Your task to perform on an android device: Open privacy settings Image 0: 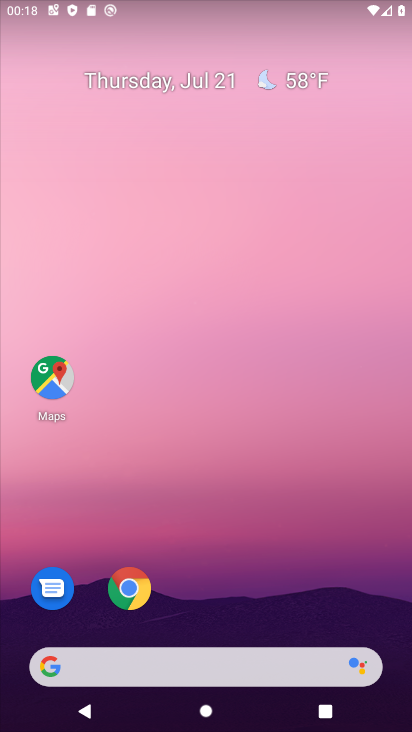
Step 0: drag from (202, 614) to (203, 129)
Your task to perform on an android device: Open privacy settings Image 1: 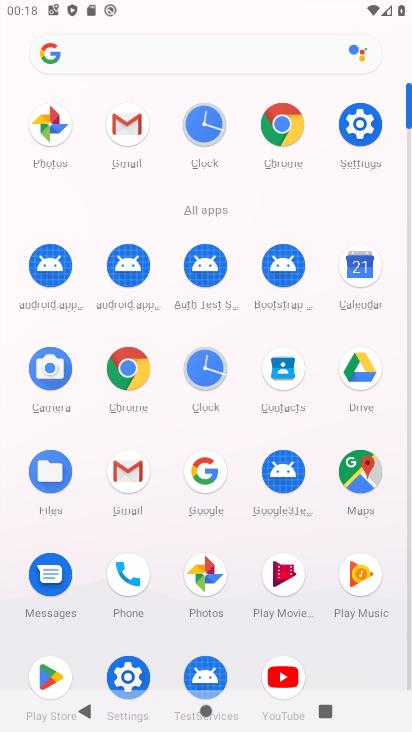
Step 1: click (370, 157)
Your task to perform on an android device: Open privacy settings Image 2: 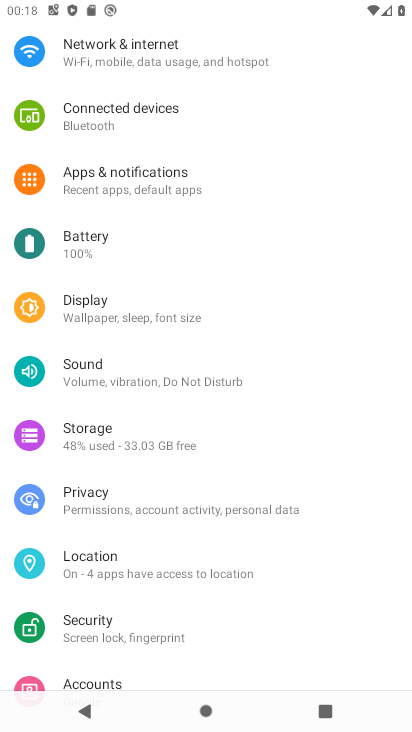
Step 2: click (98, 496)
Your task to perform on an android device: Open privacy settings Image 3: 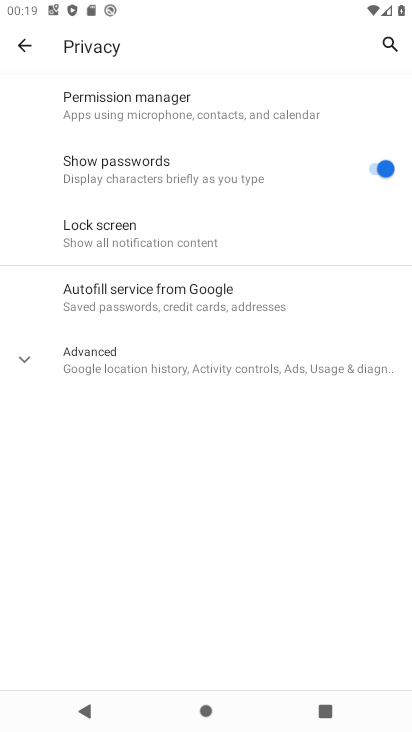
Step 3: task complete